Your task to perform on an android device: Show me the alarms in the clock app Image 0: 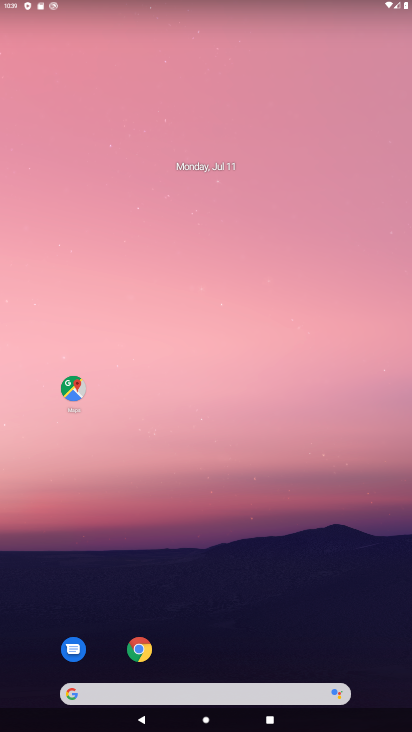
Step 0: drag from (313, 655) to (212, 167)
Your task to perform on an android device: Show me the alarms in the clock app Image 1: 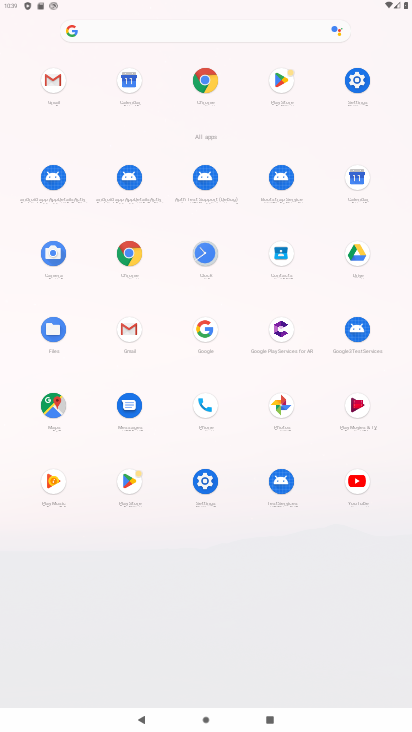
Step 1: click (205, 253)
Your task to perform on an android device: Show me the alarms in the clock app Image 2: 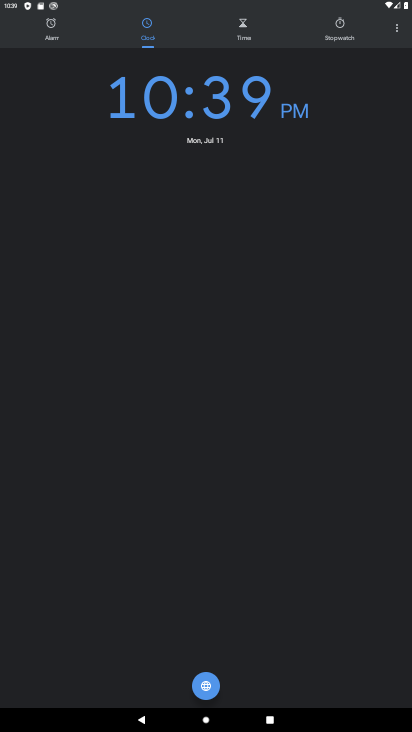
Step 2: click (54, 23)
Your task to perform on an android device: Show me the alarms in the clock app Image 3: 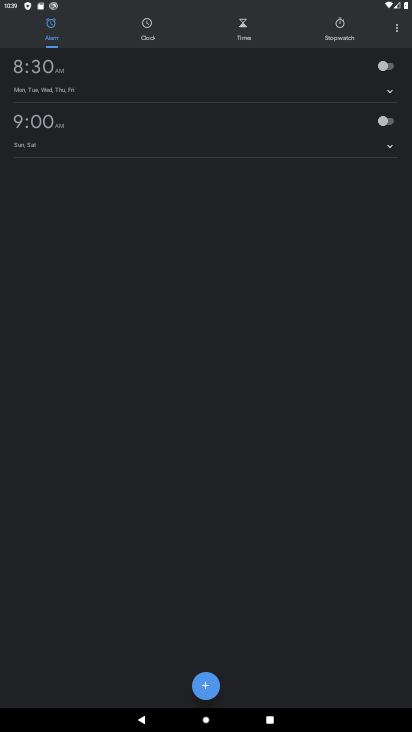
Step 3: task complete